Your task to perform on an android device: clear all cookies in the chrome app Image 0: 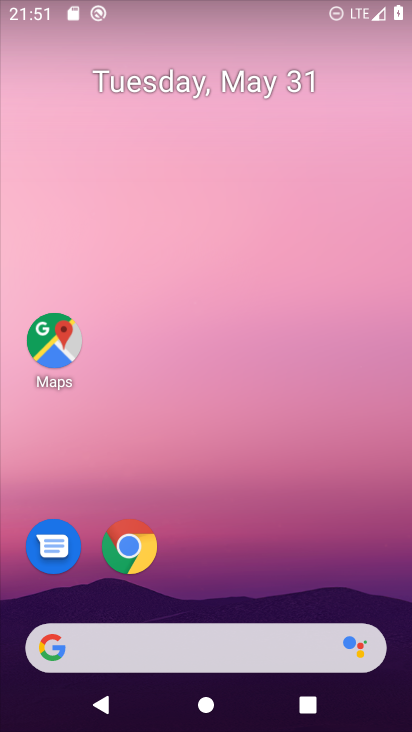
Step 0: click (128, 548)
Your task to perform on an android device: clear all cookies in the chrome app Image 1: 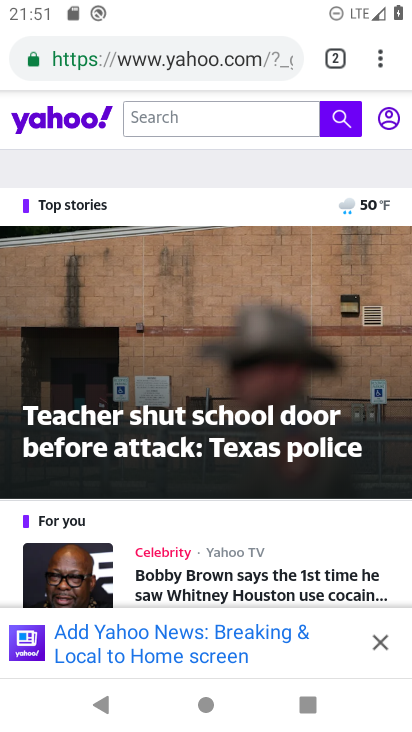
Step 1: click (377, 53)
Your task to perform on an android device: clear all cookies in the chrome app Image 2: 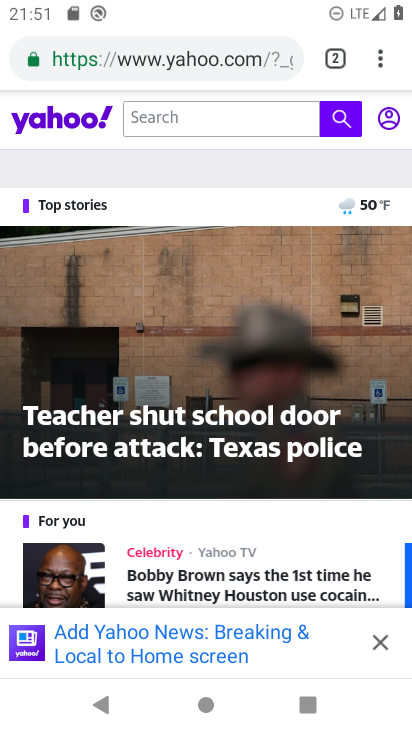
Step 2: click (378, 58)
Your task to perform on an android device: clear all cookies in the chrome app Image 3: 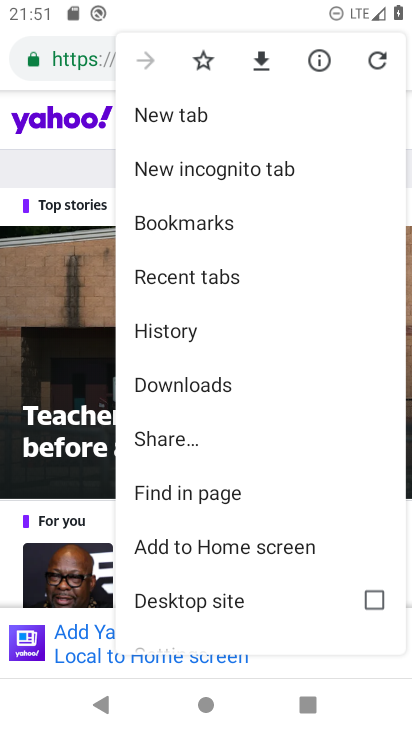
Step 3: click (169, 325)
Your task to perform on an android device: clear all cookies in the chrome app Image 4: 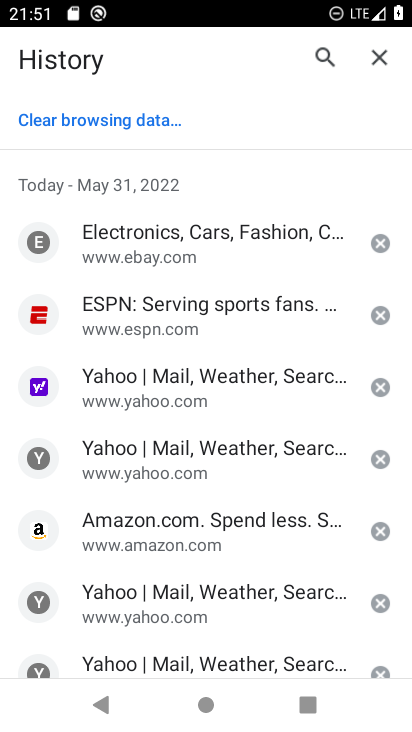
Step 4: click (143, 119)
Your task to perform on an android device: clear all cookies in the chrome app Image 5: 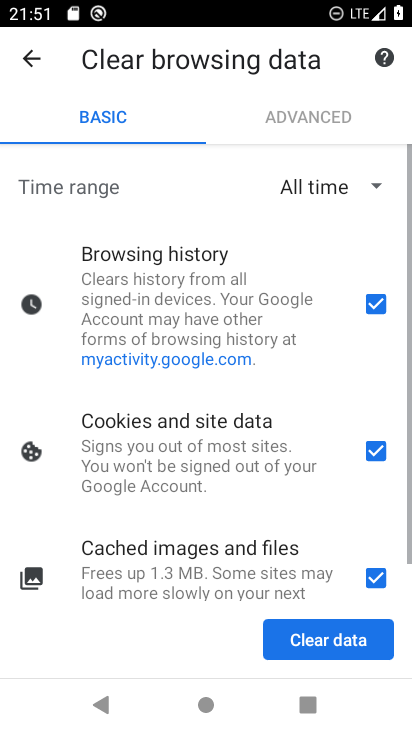
Step 5: click (369, 575)
Your task to perform on an android device: clear all cookies in the chrome app Image 6: 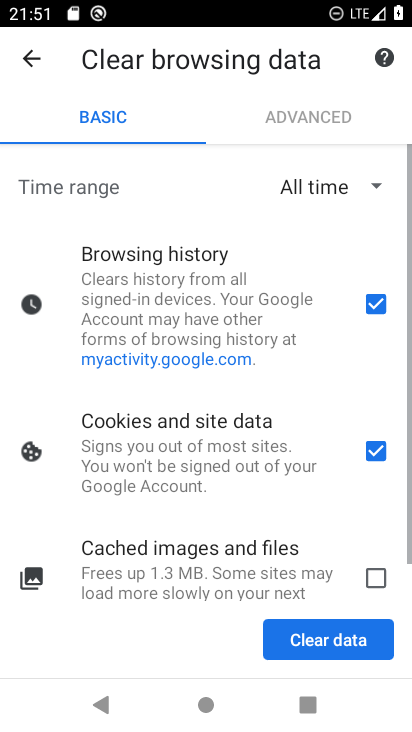
Step 6: click (369, 296)
Your task to perform on an android device: clear all cookies in the chrome app Image 7: 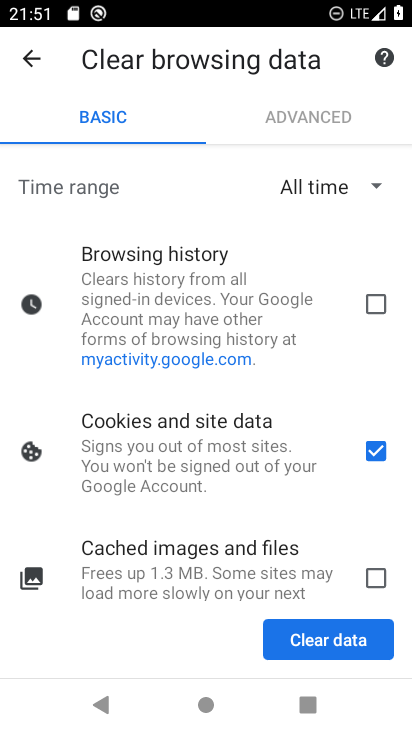
Step 7: click (340, 641)
Your task to perform on an android device: clear all cookies in the chrome app Image 8: 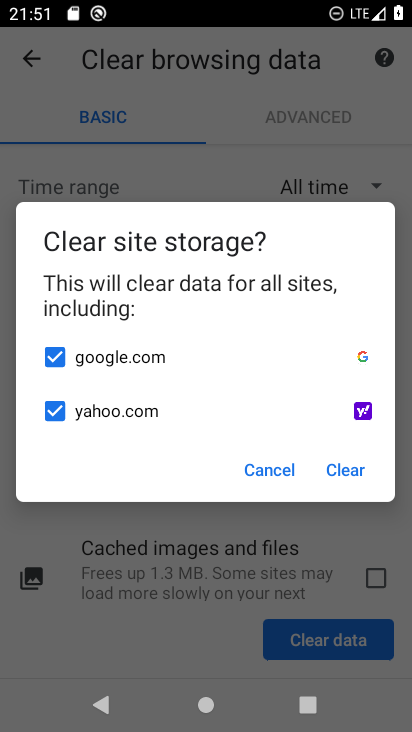
Step 8: click (344, 473)
Your task to perform on an android device: clear all cookies in the chrome app Image 9: 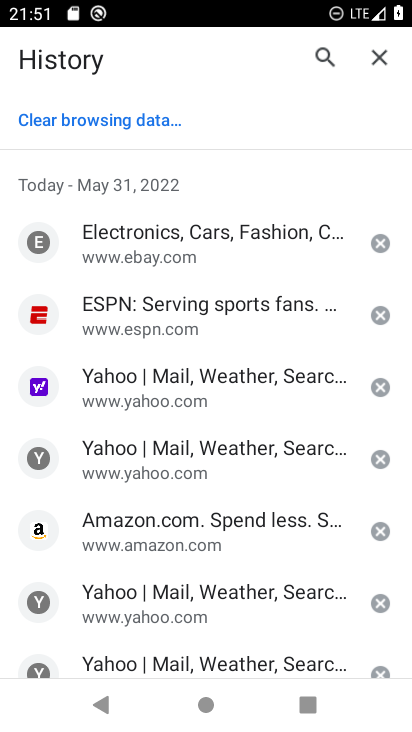
Step 9: task complete